Your task to perform on an android device: change notification settings in the gmail app Image 0: 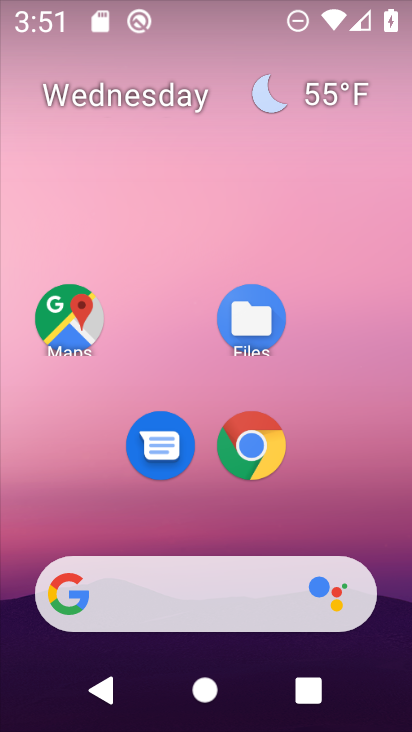
Step 0: drag from (355, 519) to (361, 43)
Your task to perform on an android device: change notification settings in the gmail app Image 1: 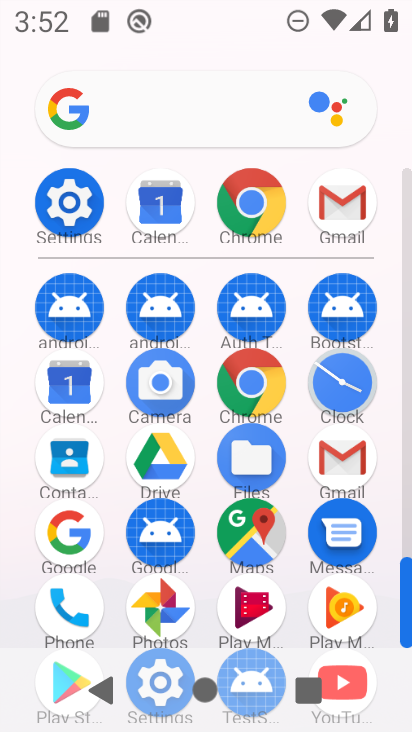
Step 1: click (355, 212)
Your task to perform on an android device: change notification settings in the gmail app Image 2: 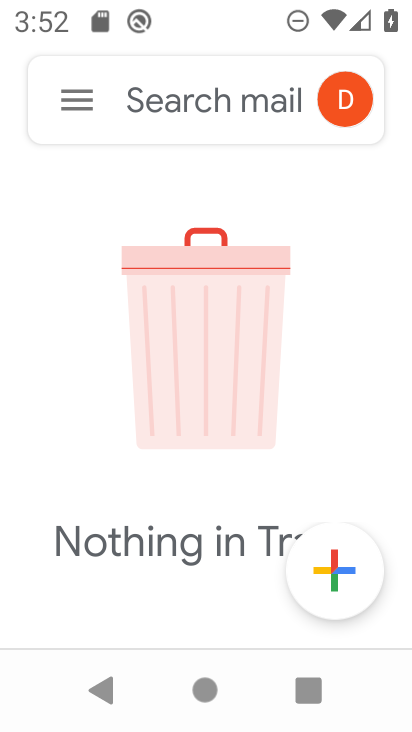
Step 2: click (362, 212)
Your task to perform on an android device: change notification settings in the gmail app Image 3: 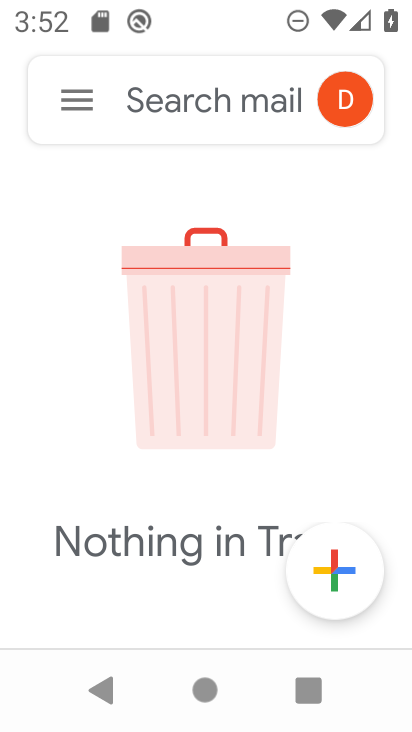
Step 3: click (362, 212)
Your task to perform on an android device: change notification settings in the gmail app Image 4: 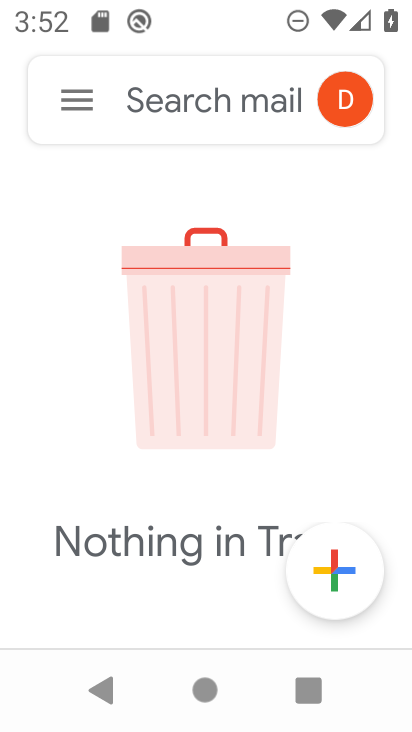
Step 4: click (76, 89)
Your task to perform on an android device: change notification settings in the gmail app Image 5: 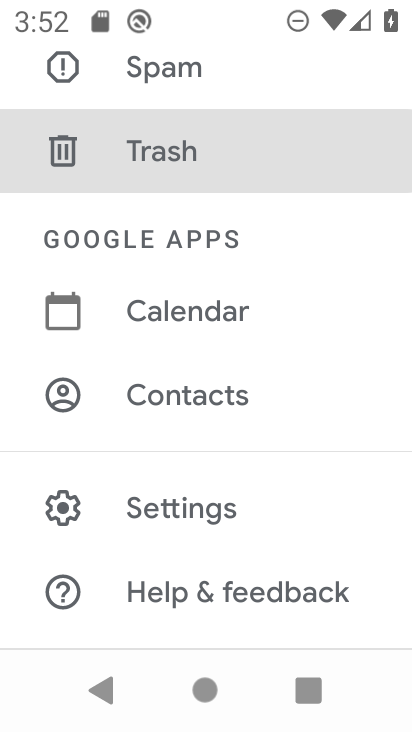
Step 5: drag from (290, 218) to (170, 581)
Your task to perform on an android device: change notification settings in the gmail app Image 6: 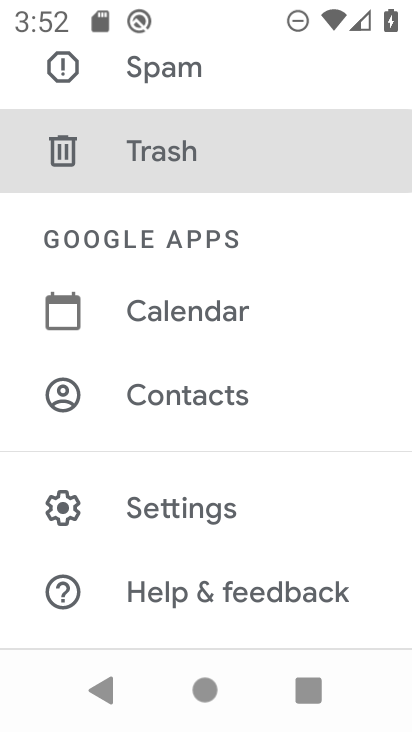
Step 6: drag from (316, 229) to (105, 687)
Your task to perform on an android device: change notification settings in the gmail app Image 7: 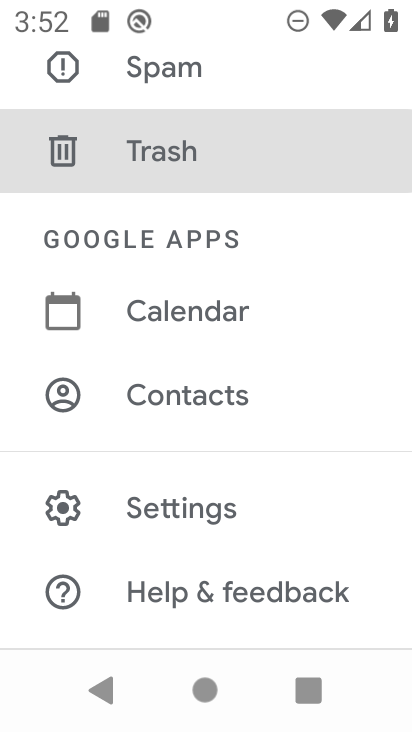
Step 7: drag from (191, 193) to (148, 544)
Your task to perform on an android device: change notification settings in the gmail app Image 8: 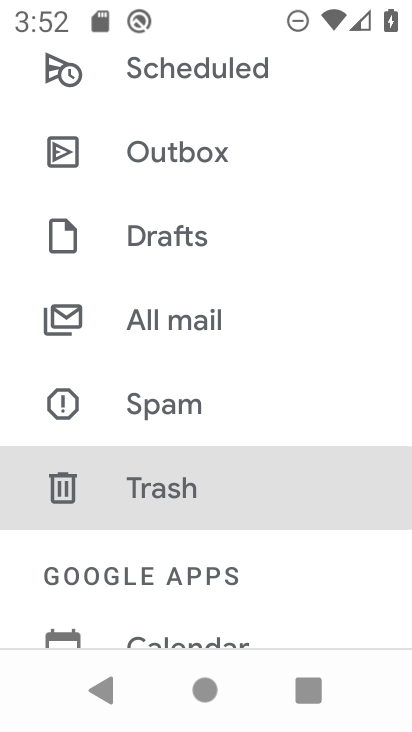
Step 8: drag from (269, 171) to (224, 586)
Your task to perform on an android device: change notification settings in the gmail app Image 9: 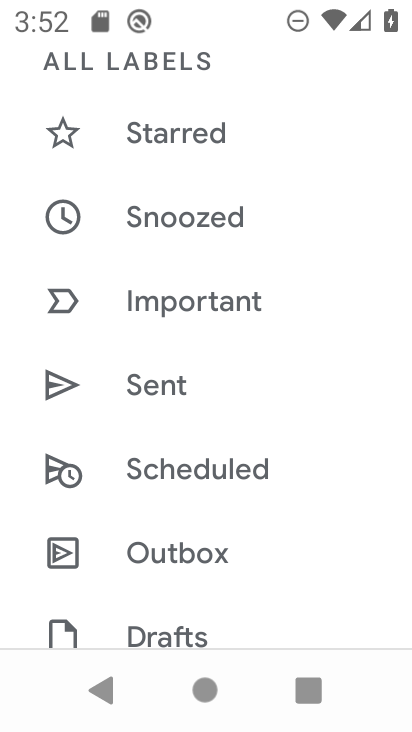
Step 9: drag from (275, 241) to (205, 607)
Your task to perform on an android device: change notification settings in the gmail app Image 10: 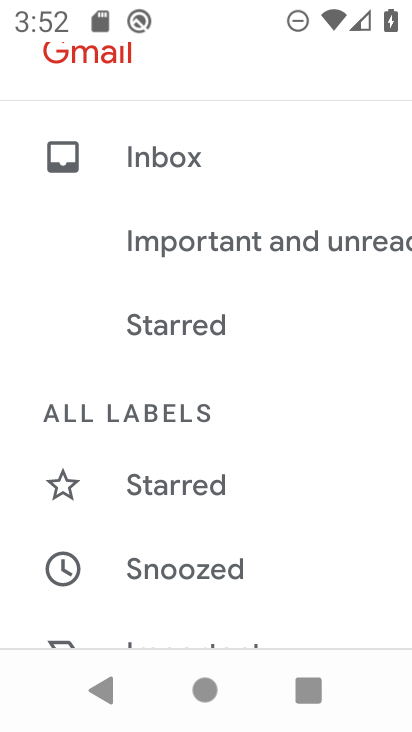
Step 10: drag from (208, 567) to (279, 174)
Your task to perform on an android device: change notification settings in the gmail app Image 11: 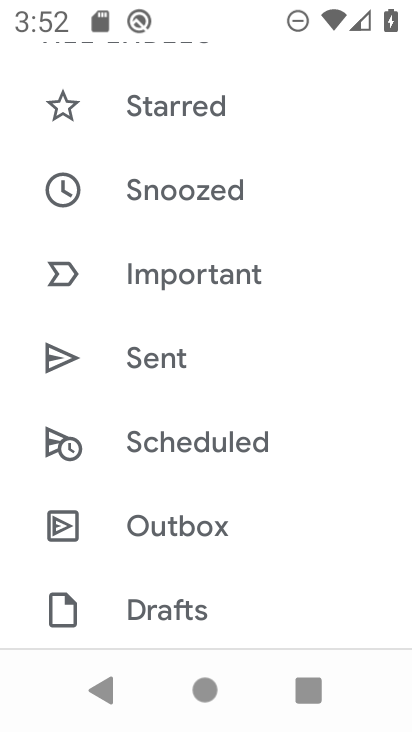
Step 11: drag from (143, 569) to (215, 222)
Your task to perform on an android device: change notification settings in the gmail app Image 12: 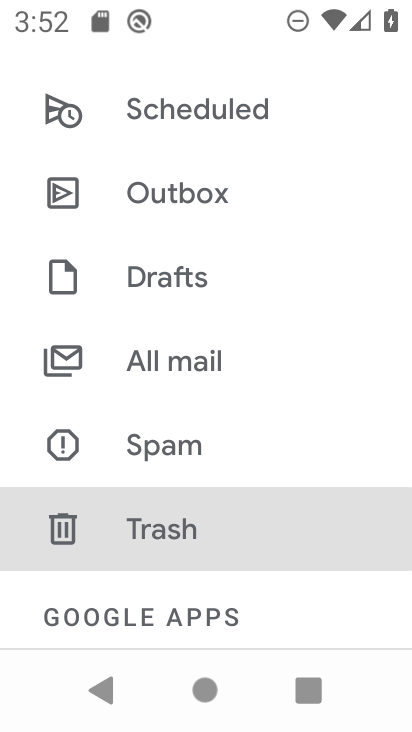
Step 12: drag from (168, 507) to (269, 107)
Your task to perform on an android device: change notification settings in the gmail app Image 13: 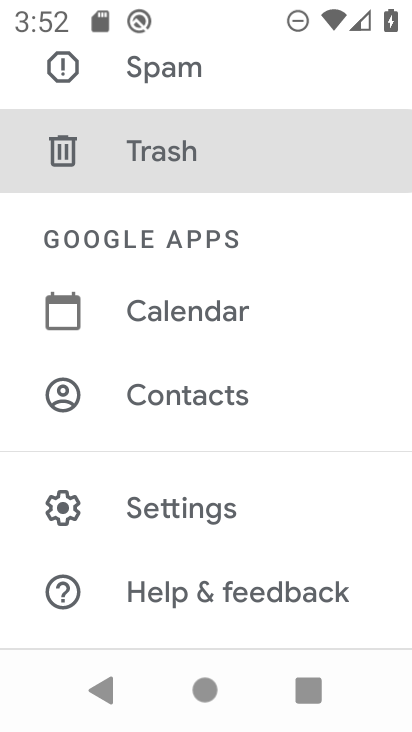
Step 13: click (128, 509)
Your task to perform on an android device: change notification settings in the gmail app Image 14: 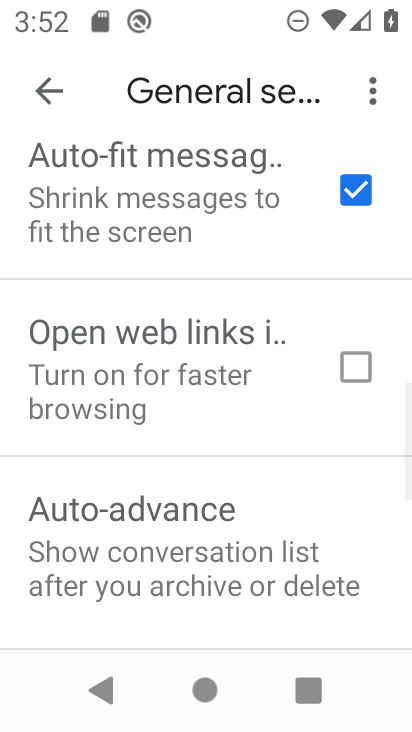
Step 14: drag from (220, 182) to (204, 518)
Your task to perform on an android device: change notification settings in the gmail app Image 15: 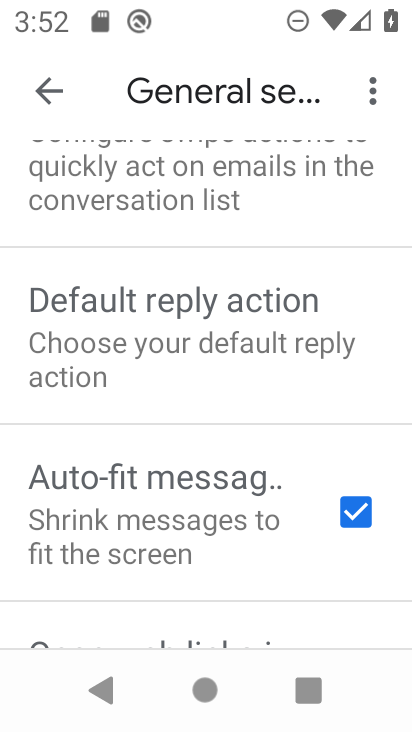
Step 15: drag from (241, 240) to (243, 522)
Your task to perform on an android device: change notification settings in the gmail app Image 16: 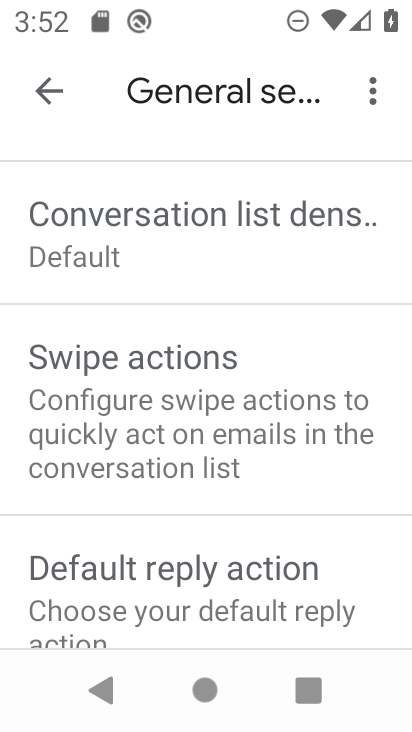
Step 16: drag from (219, 243) to (223, 514)
Your task to perform on an android device: change notification settings in the gmail app Image 17: 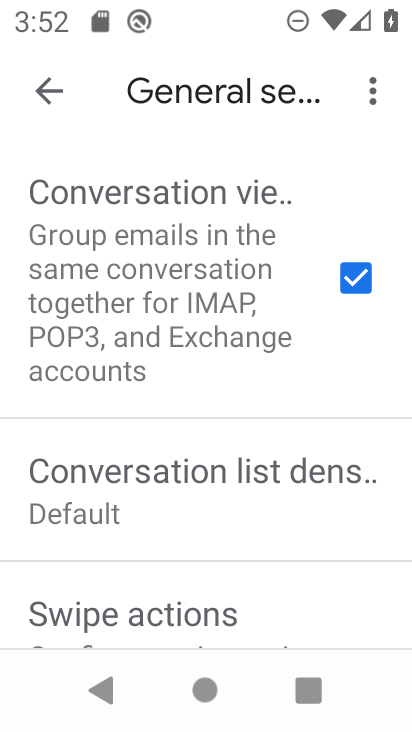
Step 17: drag from (211, 213) to (222, 543)
Your task to perform on an android device: change notification settings in the gmail app Image 18: 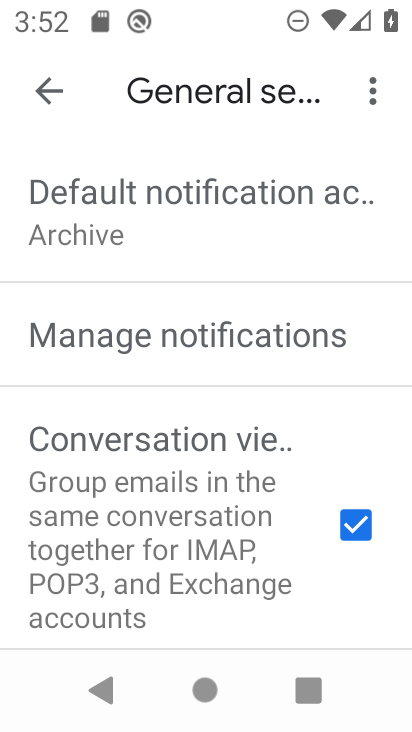
Step 18: drag from (211, 227) to (242, 527)
Your task to perform on an android device: change notification settings in the gmail app Image 19: 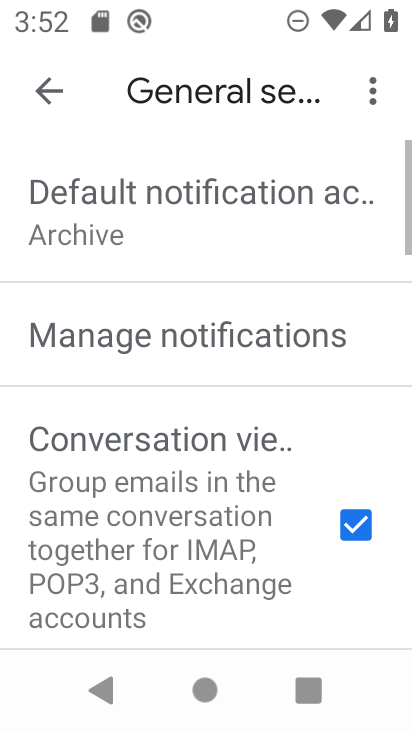
Step 19: click (202, 332)
Your task to perform on an android device: change notification settings in the gmail app Image 20: 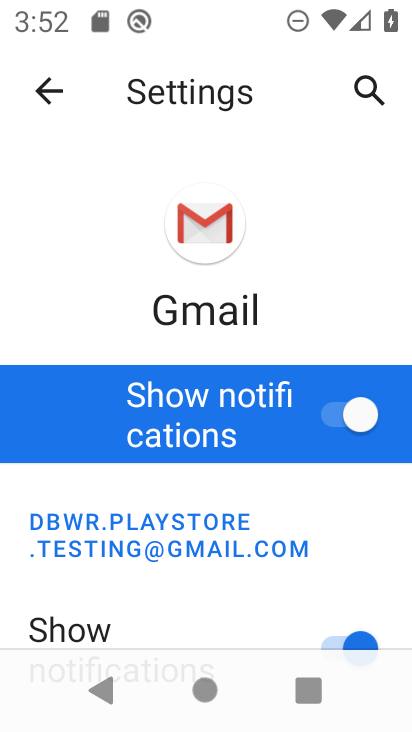
Step 20: drag from (226, 557) to (294, 166)
Your task to perform on an android device: change notification settings in the gmail app Image 21: 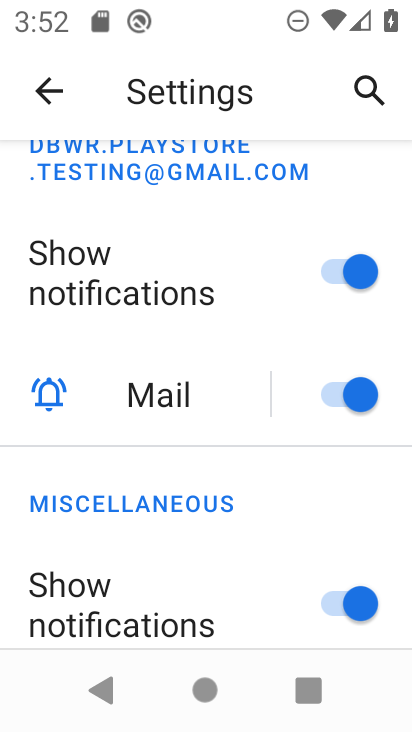
Step 21: click (343, 599)
Your task to perform on an android device: change notification settings in the gmail app Image 22: 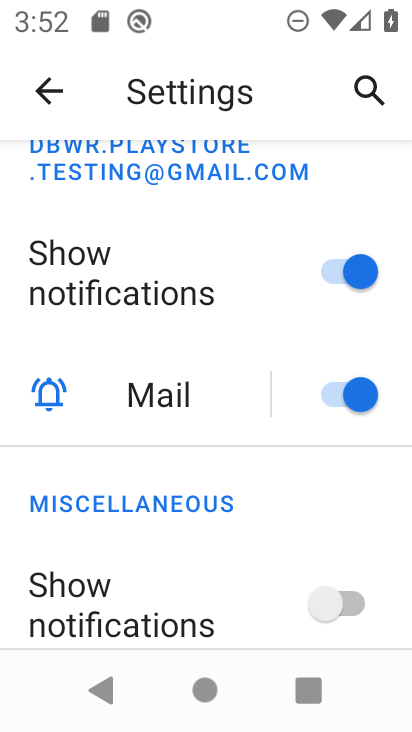
Step 22: task complete